Your task to perform on an android device: Is it going to rain today? Image 0: 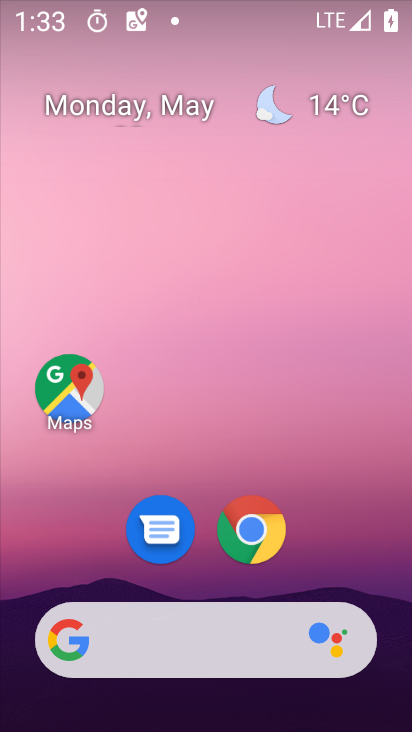
Step 0: click (222, 634)
Your task to perform on an android device: Is it going to rain today? Image 1: 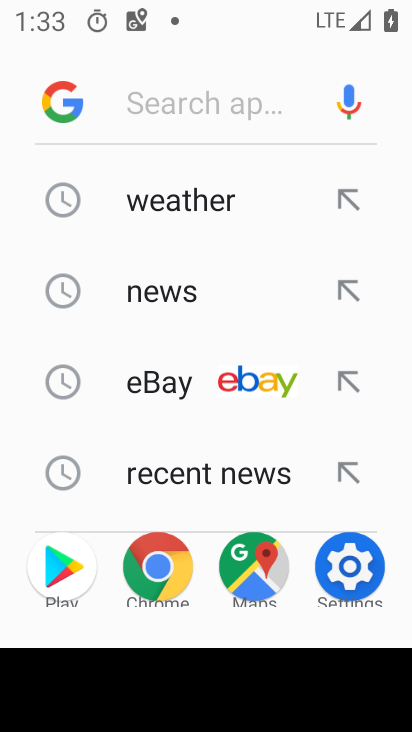
Step 1: click (206, 209)
Your task to perform on an android device: Is it going to rain today? Image 2: 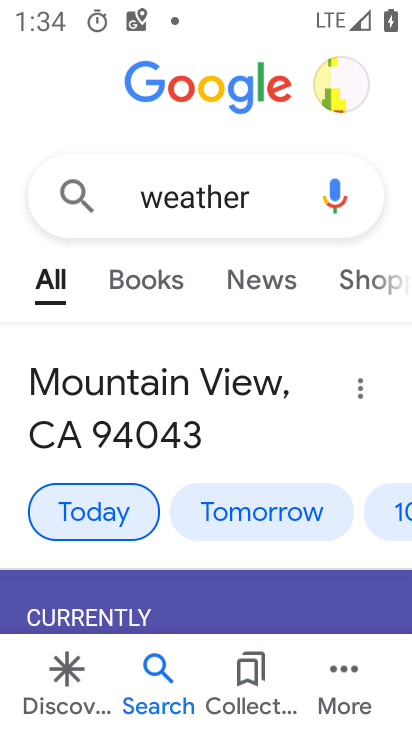
Step 2: task complete